Your task to perform on an android device: search for starred emails in the gmail app Image 0: 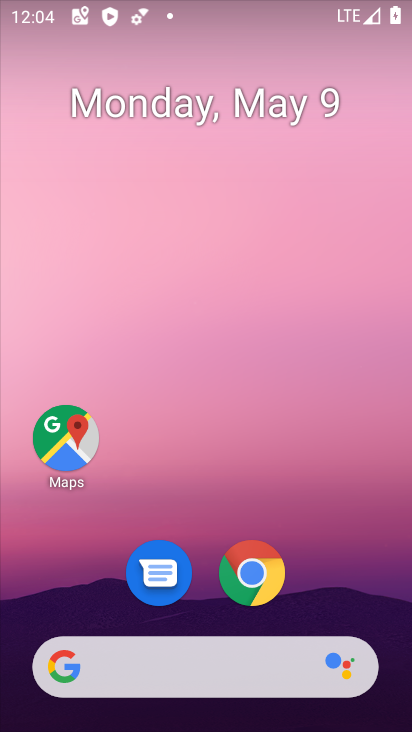
Step 0: drag from (335, 551) to (256, 7)
Your task to perform on an android device: search for starred emails in the gmail app Image 1: 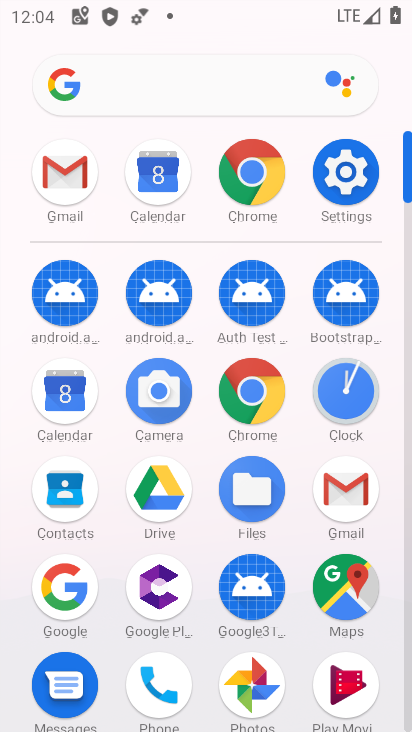
Step 1: drag from (13, 524) to (14, 198)
Your task to perform on an android device: search for starred emails in the gmail app Image 2: 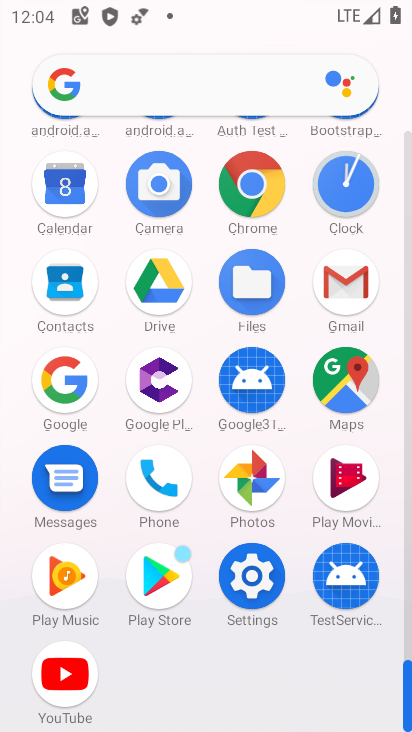
Step 2: click (345, 277)
Your task to perform on an android device: search for starred emails in the gmail app Image 3: 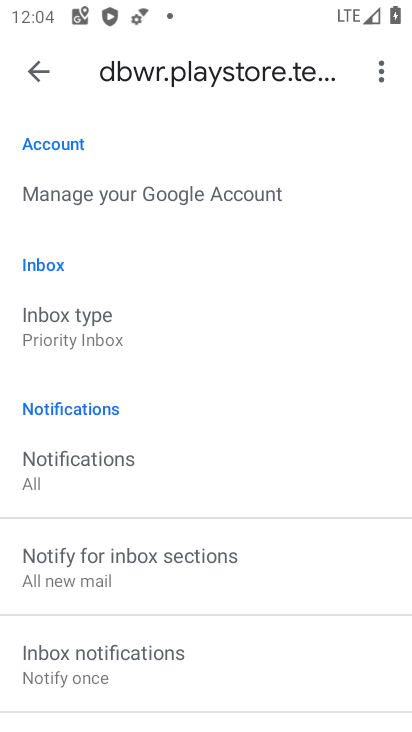
Step 3: click (40, 72)
Your task to perform on an android device: search for starred emails in the gmail app Image 4: 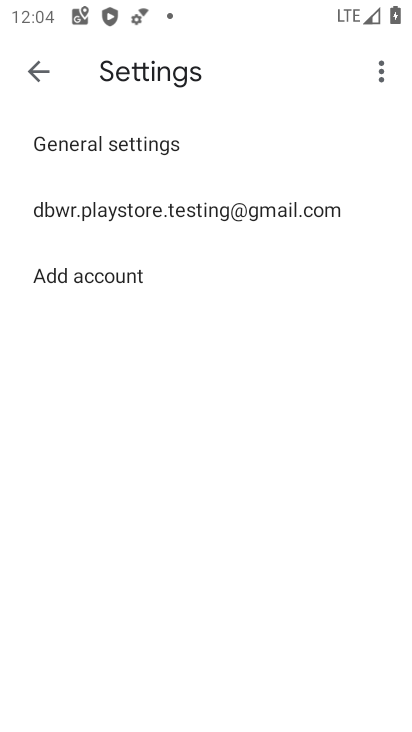
Step 4: click (40, 72)
Your task to perform on an android device: search for starred emails in the gmail app Image 5: 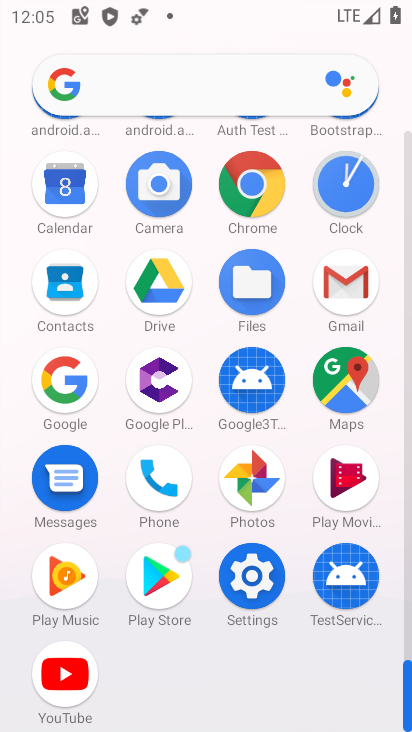
Step 5: click (345, 281)
Your task to perform on an android device: search for starred emails in the gmail app Image 6: 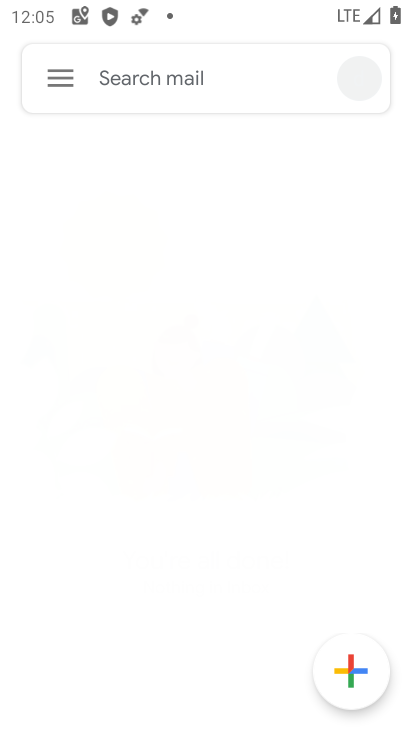
Step 6: click (61, 91)
Your task to perform on an android device: search for starred emails in the gmail app Image 7: 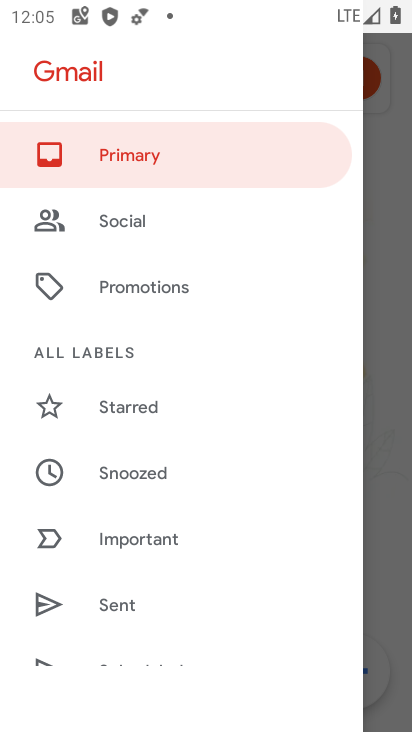
Step 7: click (158, 411)
Your task to perform on an android device: search for starred emails in the gmail app Image 8: 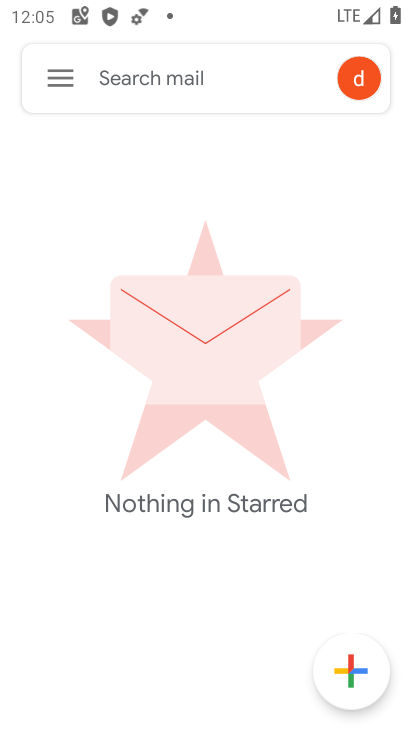
Step 8: task complete